Your task to perform on an android device: Search for seafood restaurants on Google Maps Image 0: 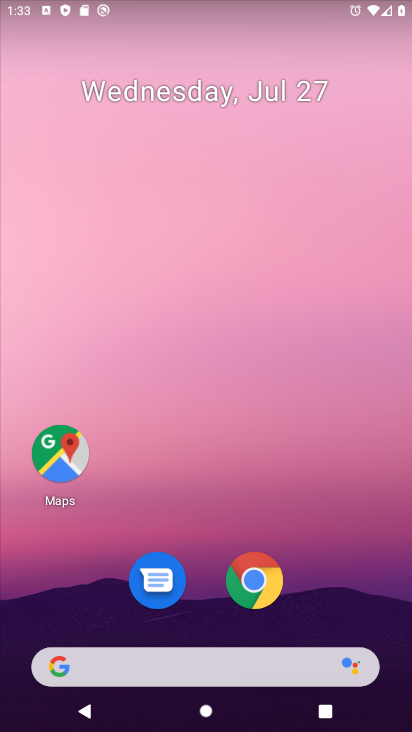
Step 0: click (77, 463)
Your task to perform on an android device: Search for seafood restaurants on Google Maps Image 1: 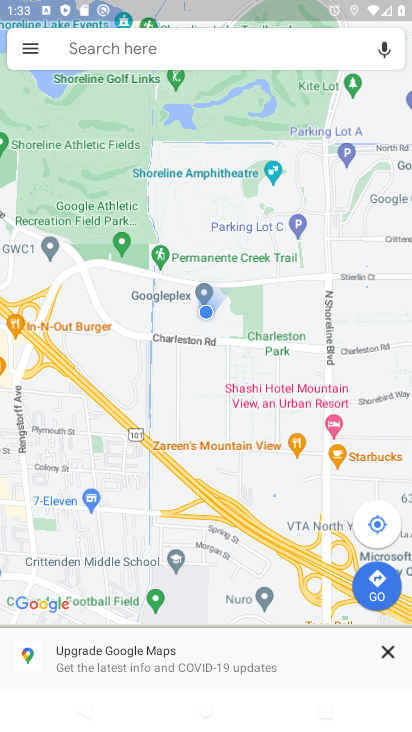
Step 1: click (108, 46)
Your task to perform on an android device: Search for seafood restaurants on Google Maps Image 2: 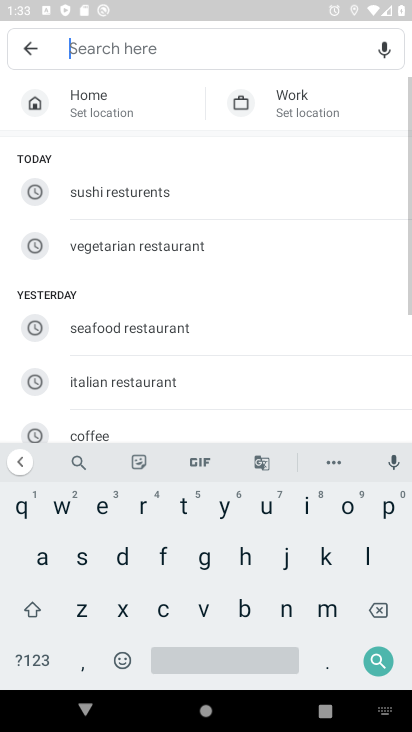
Step 2: click (75, 553)
Your task to perform on an android device: Search for seafood restaurants on Google Maps Image 3: 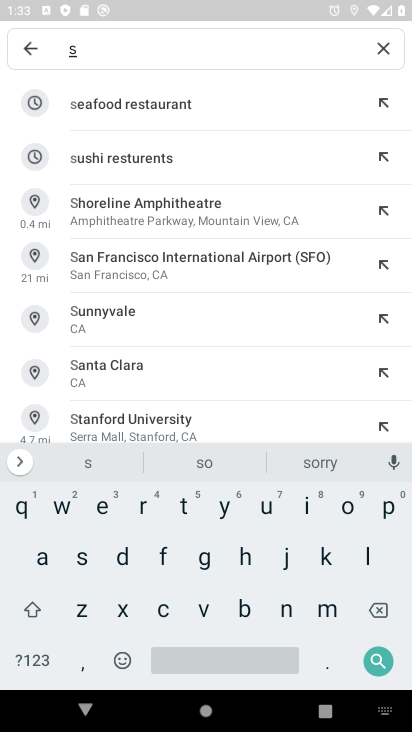
Step 3: click (192, 108)
Your task to perform on an android device: Search for seafood restaurants on Google Maps Image 4: 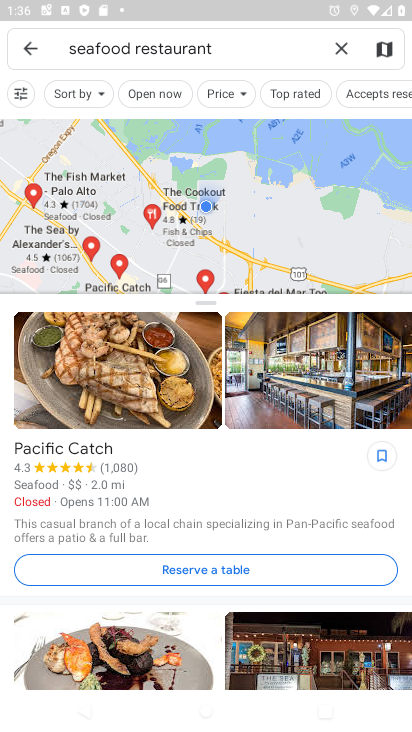
Step 4: task complete